Your task to perform on an android device: Go to battery settings Image 0: 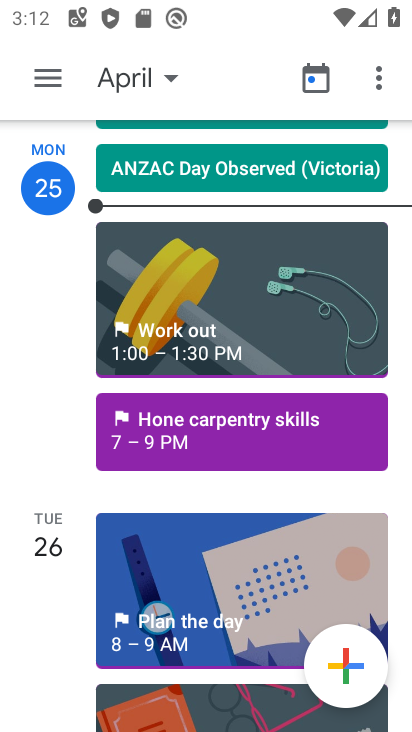
Step 0: press home button
Your task to perform on an android device: Go to battery settings Image 1: 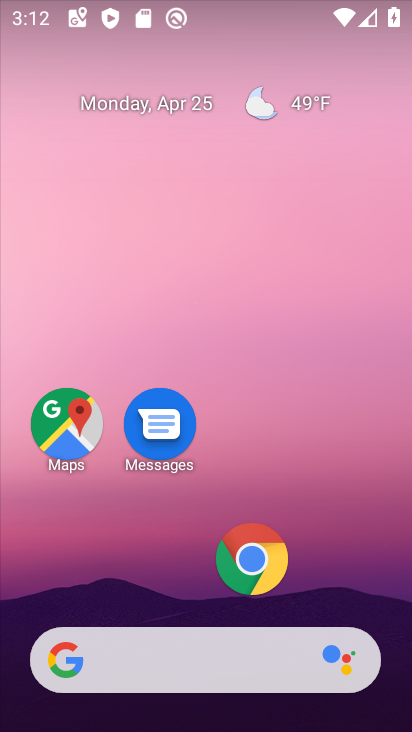
Step 1: drag from (179, 583) to (199, 21)
Your task to perform on an android device: Go to battery settings Image 2: 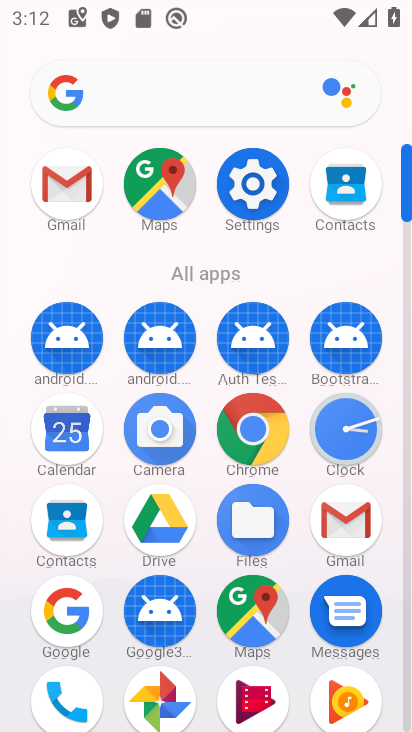
Step 2: click (252, 191)
Your task to perform on an android device: Go to battery settings Image 3: 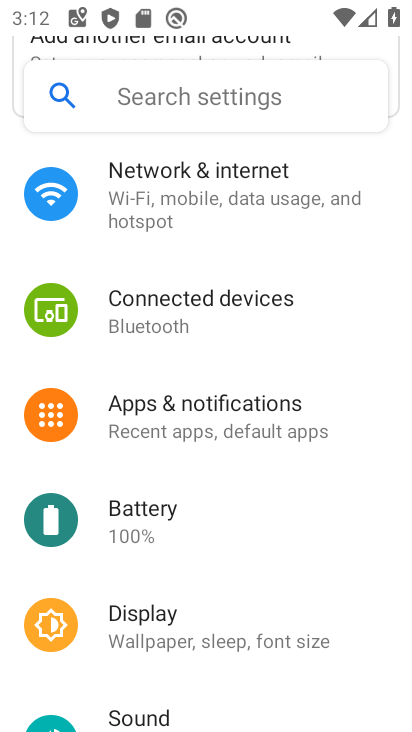
Step 3: click (204, 519)
Your task to perform on an android device: Go to battery settings Image 4: 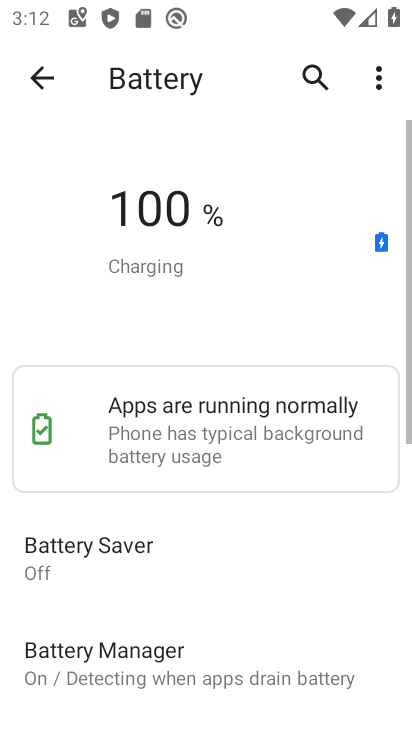
Step 4: task complete